Your task to perform on an android device: toggle javascript in the chrome app Image 0: 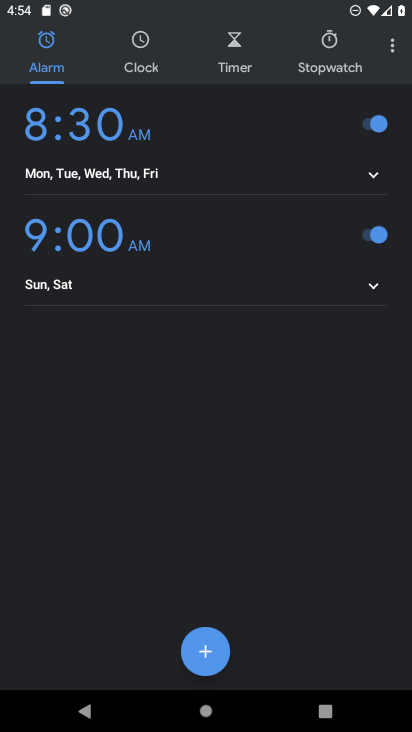
Step 0: press home button
Your task to perform on an android device: toggle javascript in the chrome app Image 1: 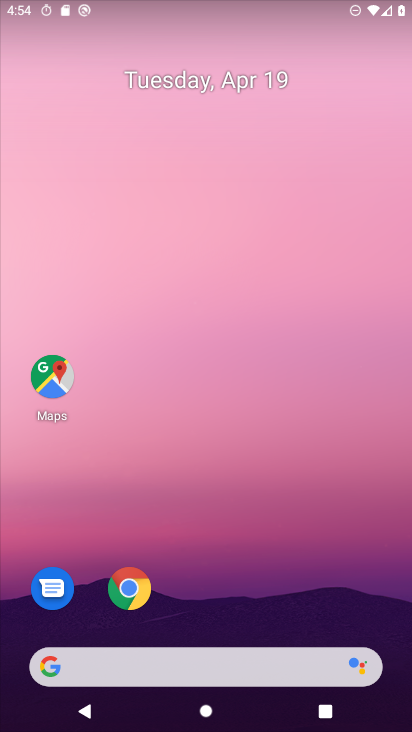
Step 1: click (129, 587)
Your task to perform on an android device: toggle javascript in the chrome app Image 2: 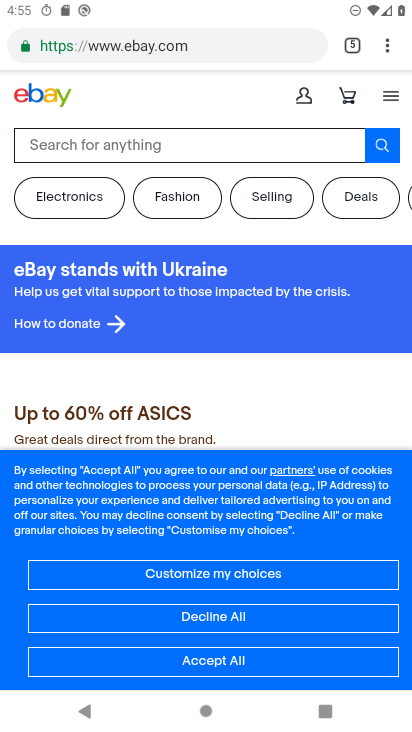
Step 2: click (393, 44)
Your task to perform on an android device: toggle javascript in the chrome app Image 3: 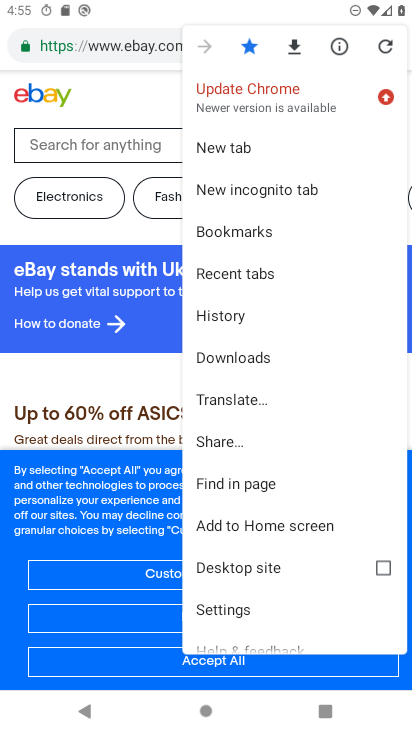
Step 3: click (240, 602)
Your task to perform on an android device: toggle javascript in the chrome app Image 4: 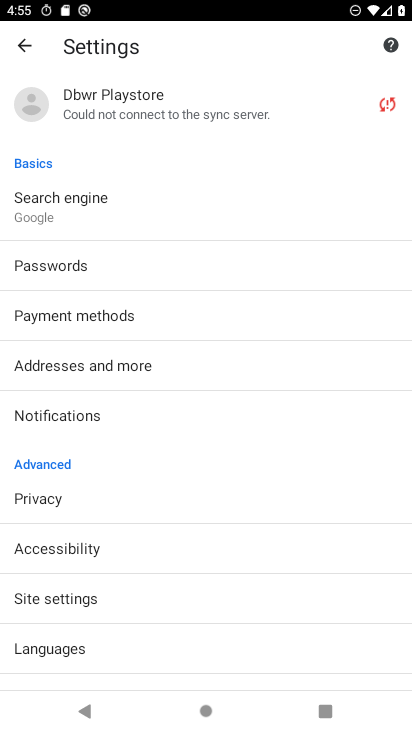
Step 4: click (155, 600)
Your task to perform on an android device: toggle javascript in the chrome app Image 5: 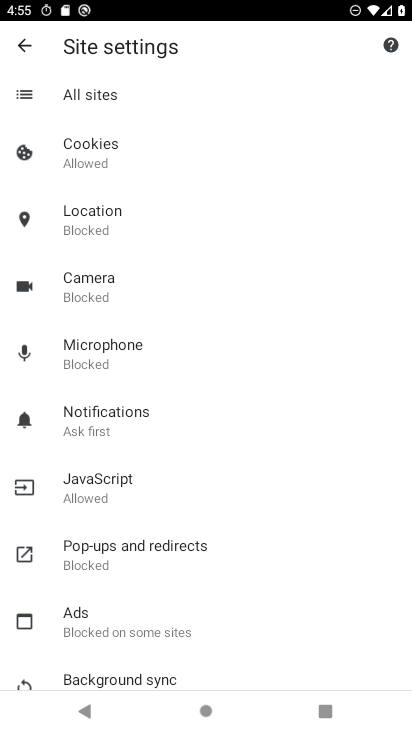
Step 5: click (158, 490)
Your task to perform on an android device: toggle javascript in the chrome app Image 6: 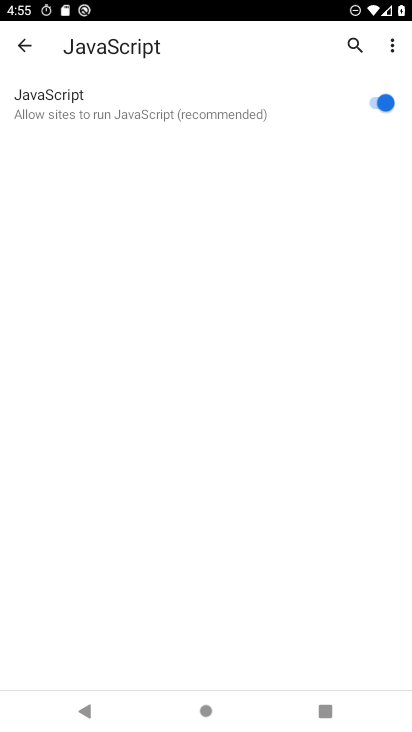
Step 6: click (199, 86)
Your task to perform on an android device: toggle javascript in the chrome app Image 7: 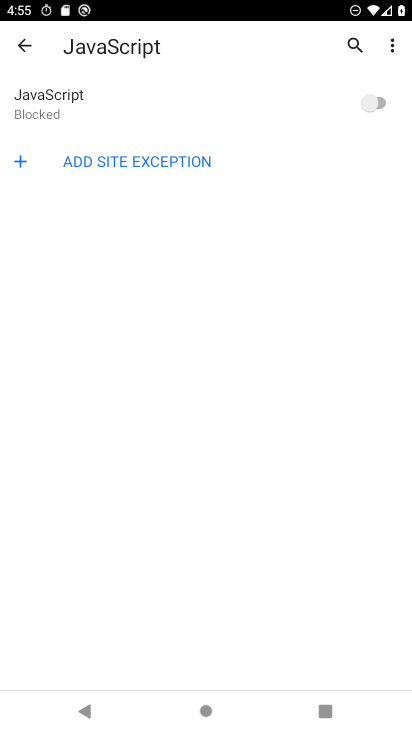
Step 7: task complete